Your task to perform on an android device: Open eBay Image 0: 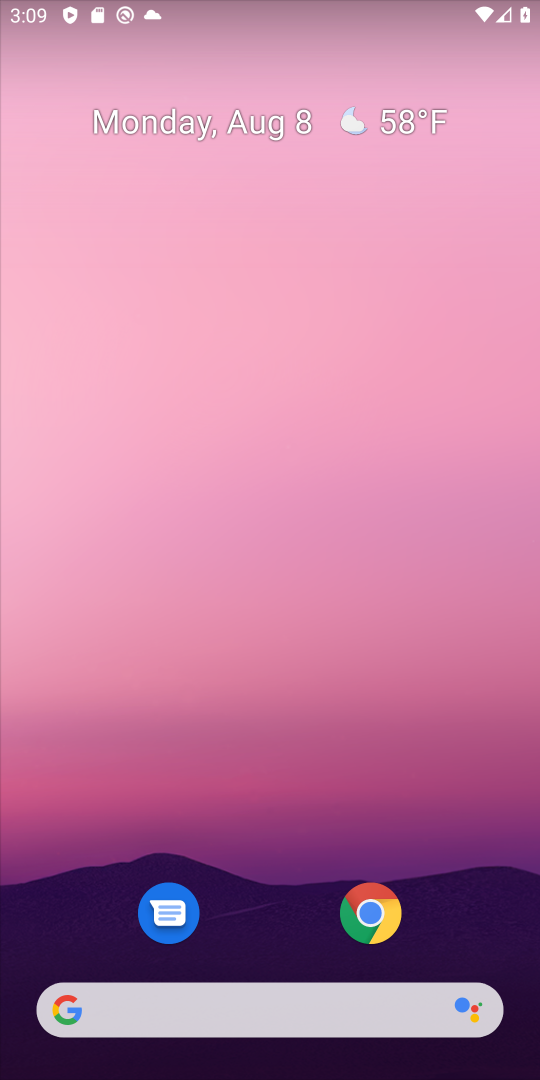
Step 0: press home button
Your task to perform on an android device: Open eBay Image 1: 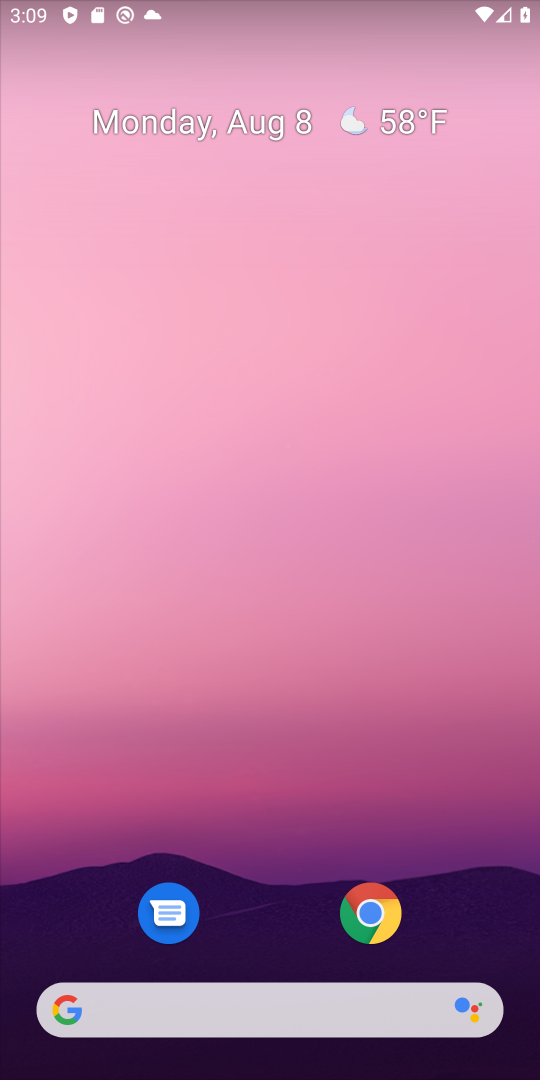
Step 1: drag from (446, 849) to (446, 146)
Your task to perform on an android device: Open eBay Image 2: 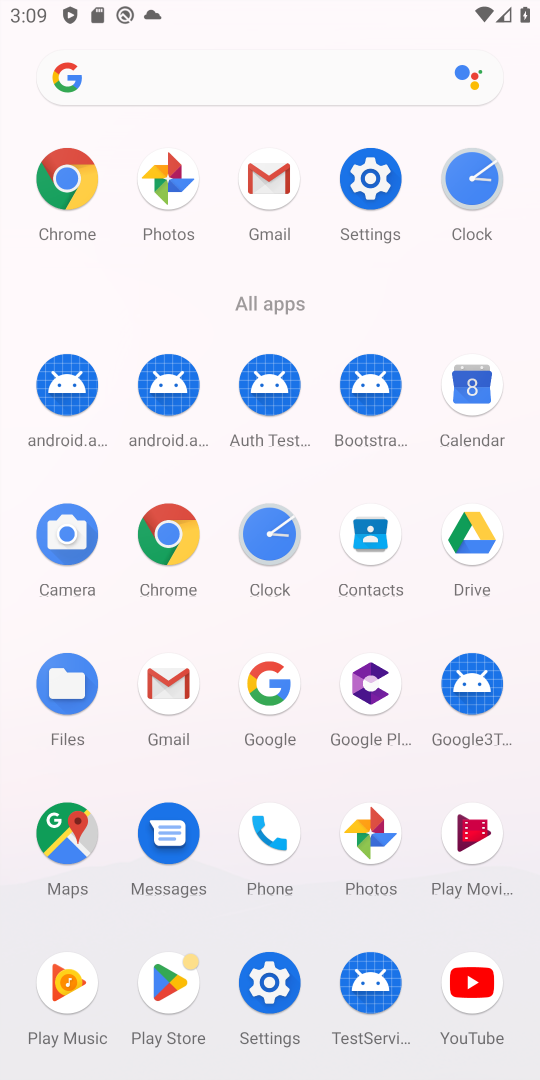
Step 2: click (163, 550)
Your task to perform on an android device: Open eBay Image 3: 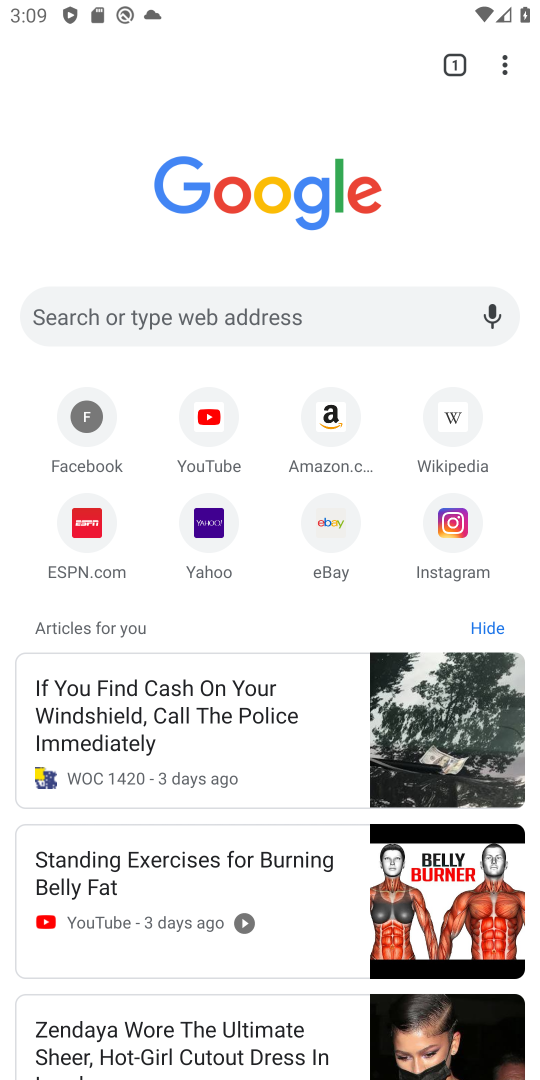
Step 3: click (287, 308)
Your task to perform on an android device: Open eBay Image 4: 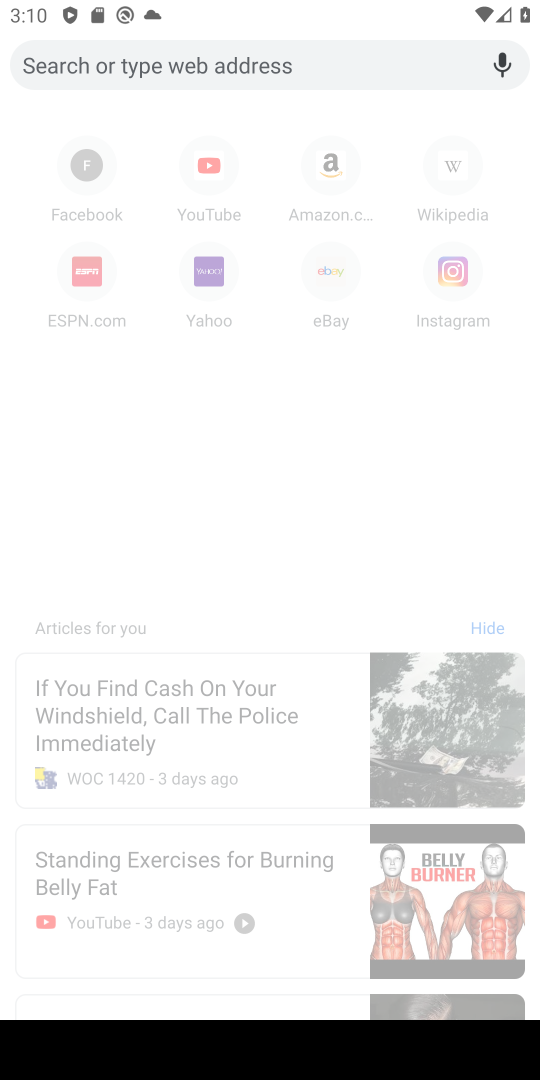
Step 4: type "ebay"
Your task to perform on an android device: Open eBay Image 5: 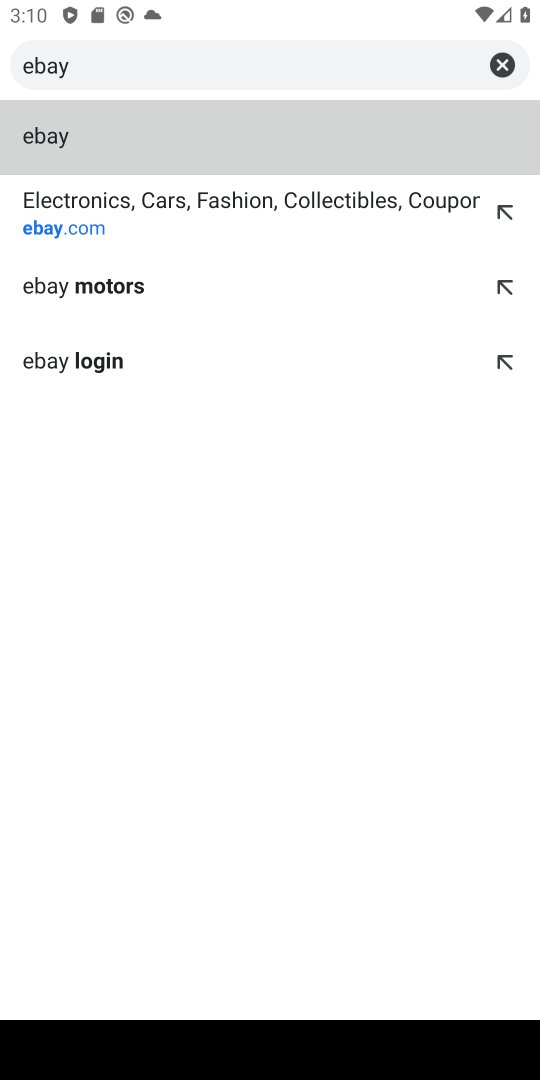
Step 5: click (315, 147)
Your task to perform on an android device: Open eBay Image 6: 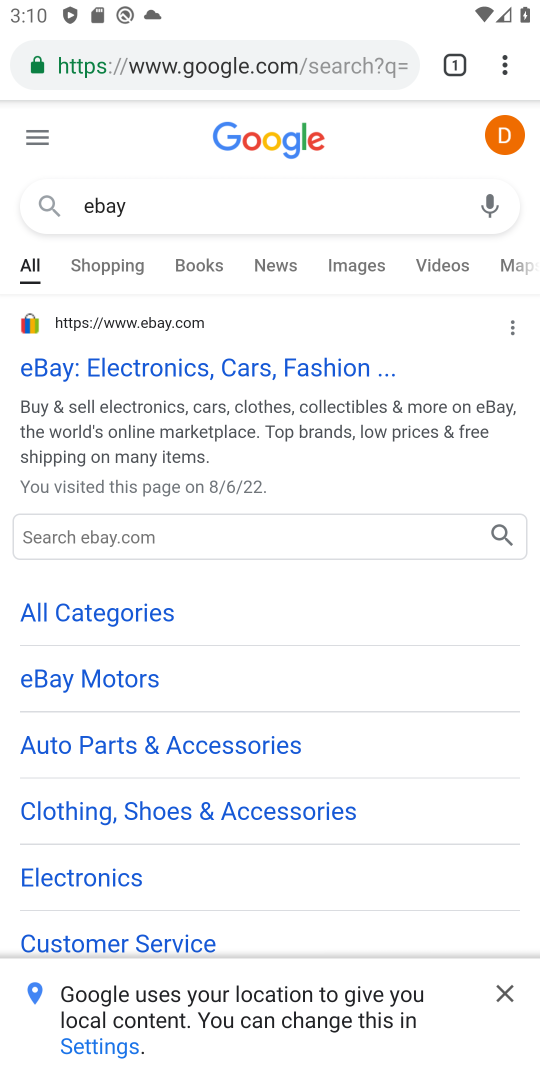
Step 6: task complete